Your task to perform on an android device: Open Wikipedia Image 0: 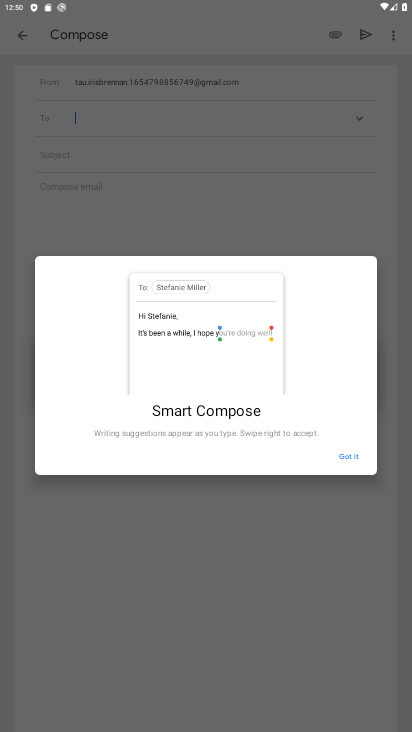
Step 0: press home button
Your task to perform on an android device: Open Wikipedia Image 1: 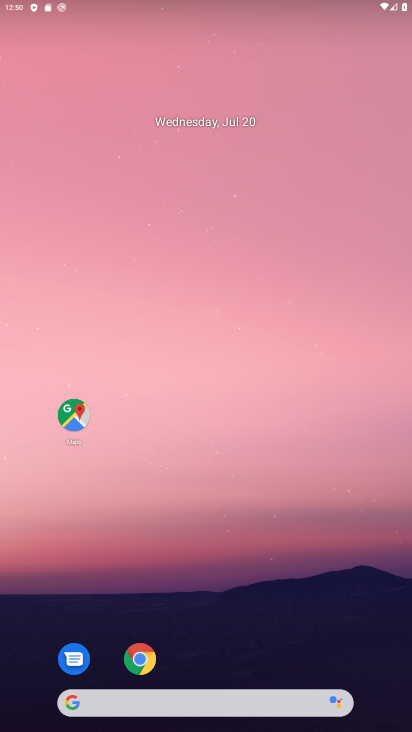
Step 1: drag from (383, 673) to (213, 48)
Your task to perform on an android device: Open Wikipedia Image 2: 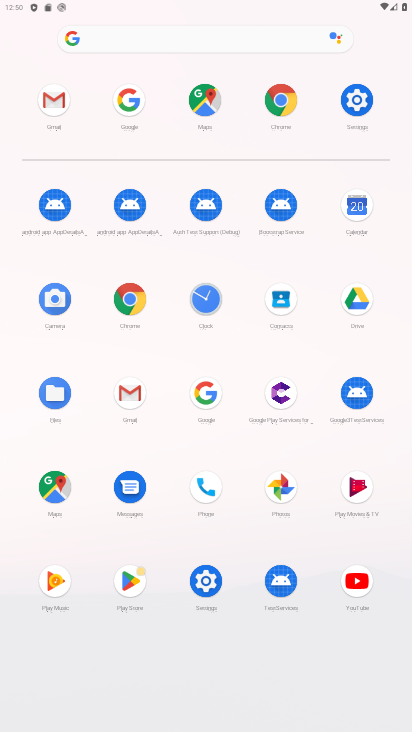
Step 2: click (195, 392)
Your task to perform on an android device: Open Wikipedia Image 3: 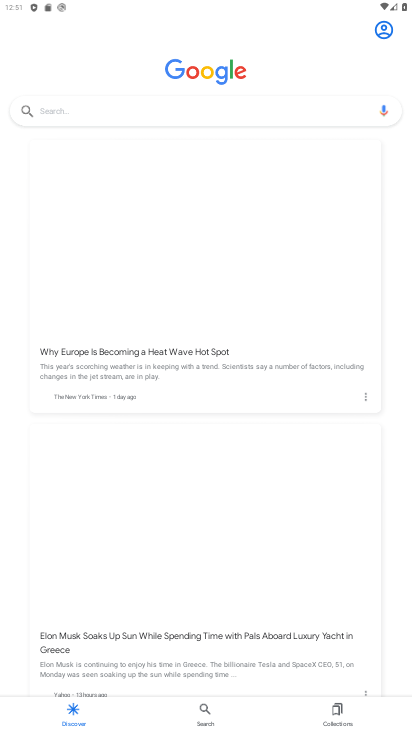
Step 3: click (116, 120)
Your task to perform on an android device: Open Wikipedia Image 4: 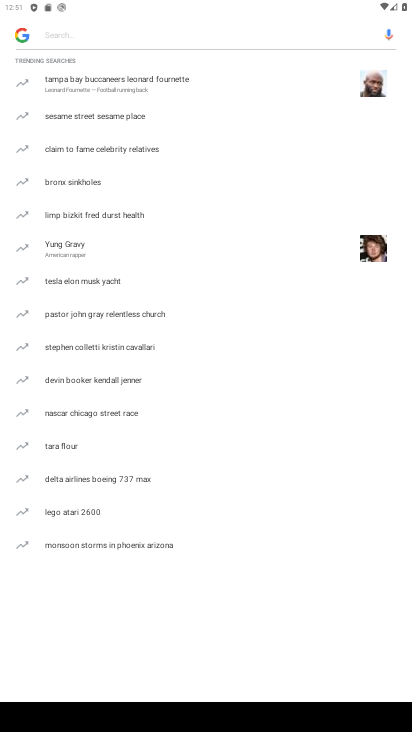
Step 4: type "Wikipedia"
Your task to perform on an android device: Open Wikipedia Image 5: 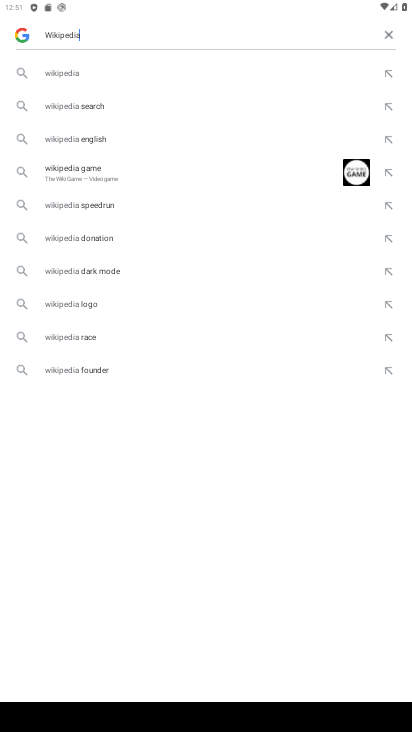
Step 5: click (65, 74)
Your task to perform on an android device: Open Wikipedia Image 6: 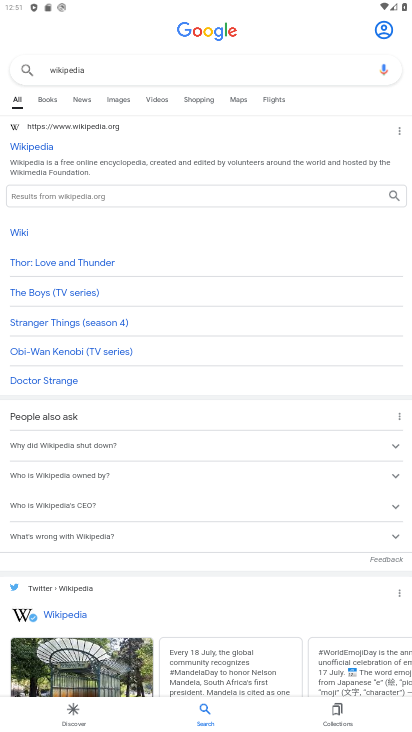
Step 6: task complete